Your task to perform on an android device: Go to network settings Image 0: 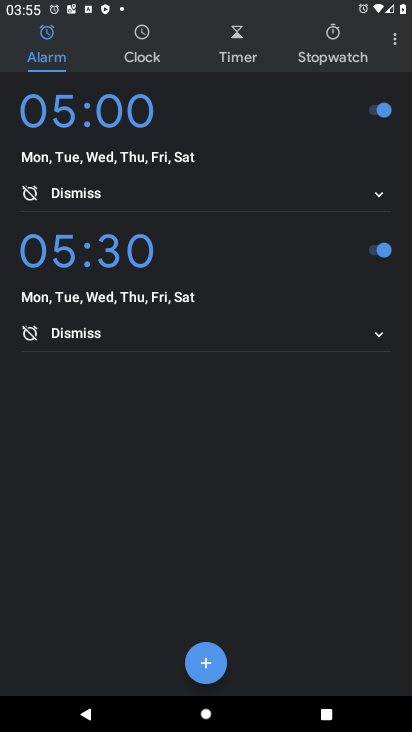
Step 0: press home button
Your task to perform on an android device: Go to network settings Image 1: 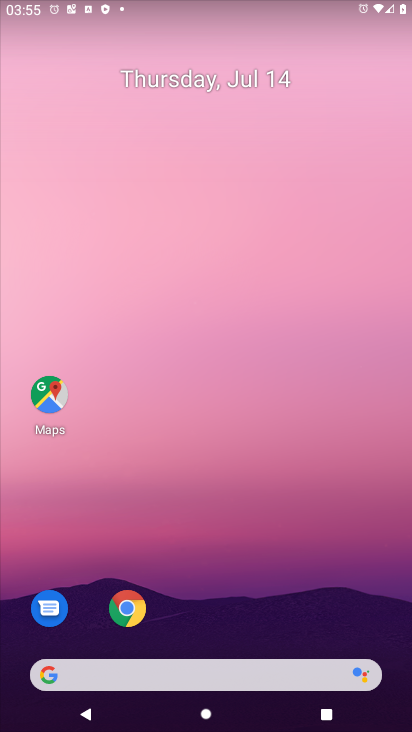
Step 1: drag from (376, 615) to (369, 103)
Your task to perform on an android device: Go to network settings Image 2: 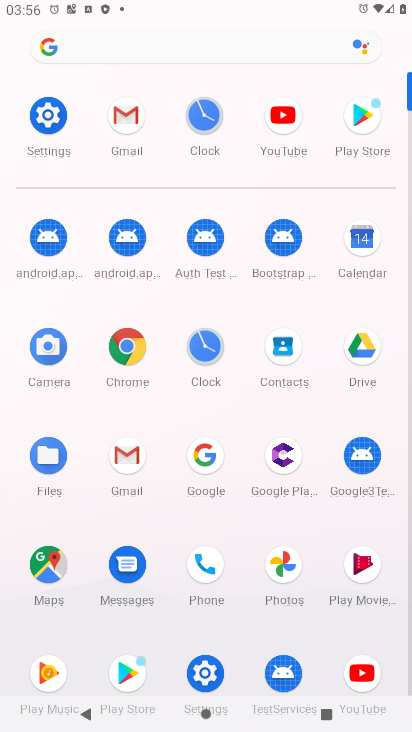
Step 2: click (206, 674)
Your task to perform on an android device: Go to network settings Image 3: 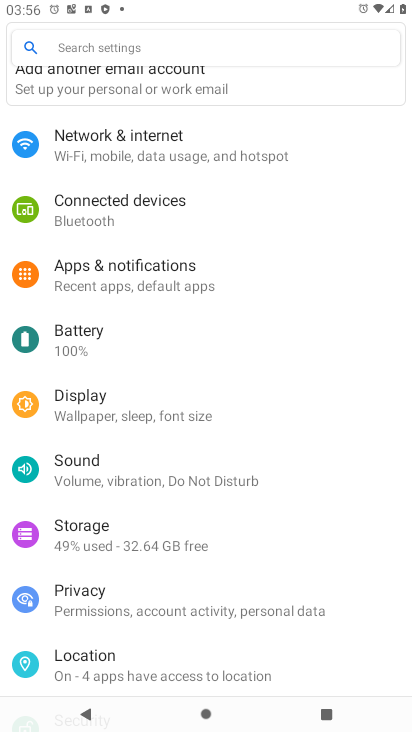
Step 3: click (89, 150)
Your task to perform on an android device: Go to network settings Image 4: 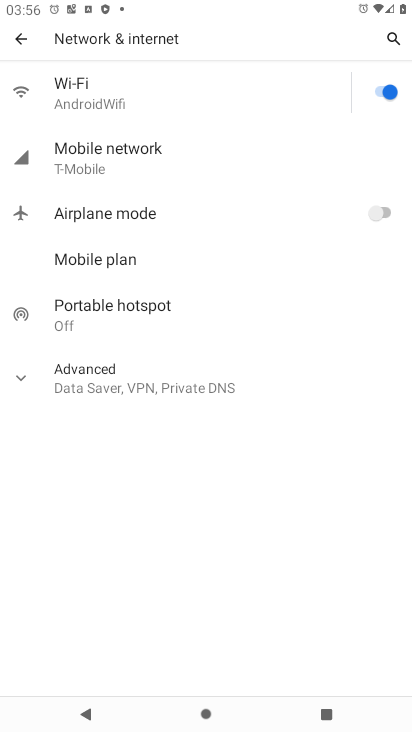
Step 4: click (85, 158)
Your task to perform on an android device: Go to network settings Image 5: 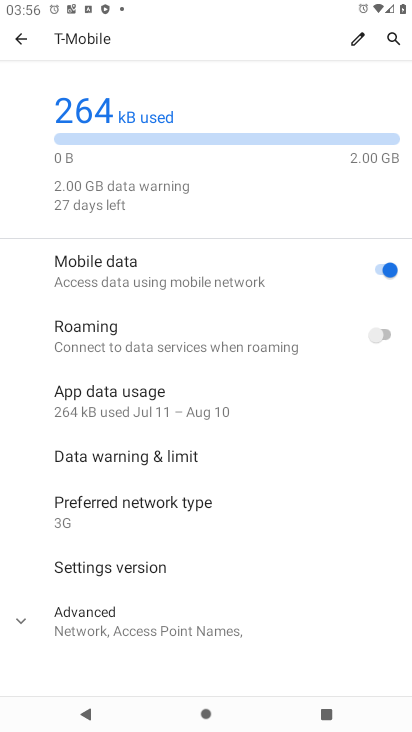
Step 5: click (26, 621)
Your task to perform on an android device: Go to network settings Image 6: 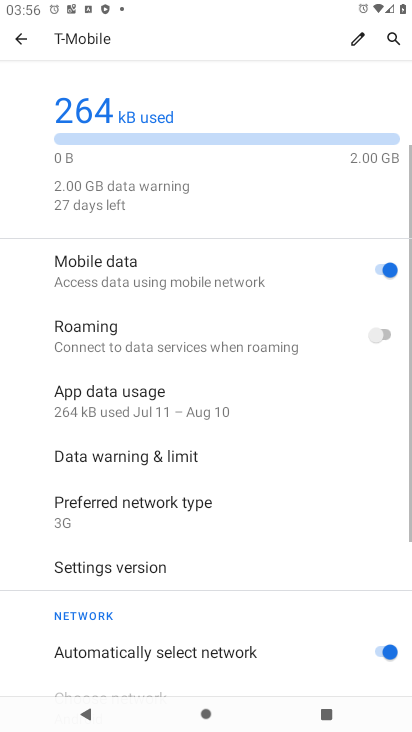
Step 6: task complete